Your task to perform on an android device: Turn on the flashlight Image 0: 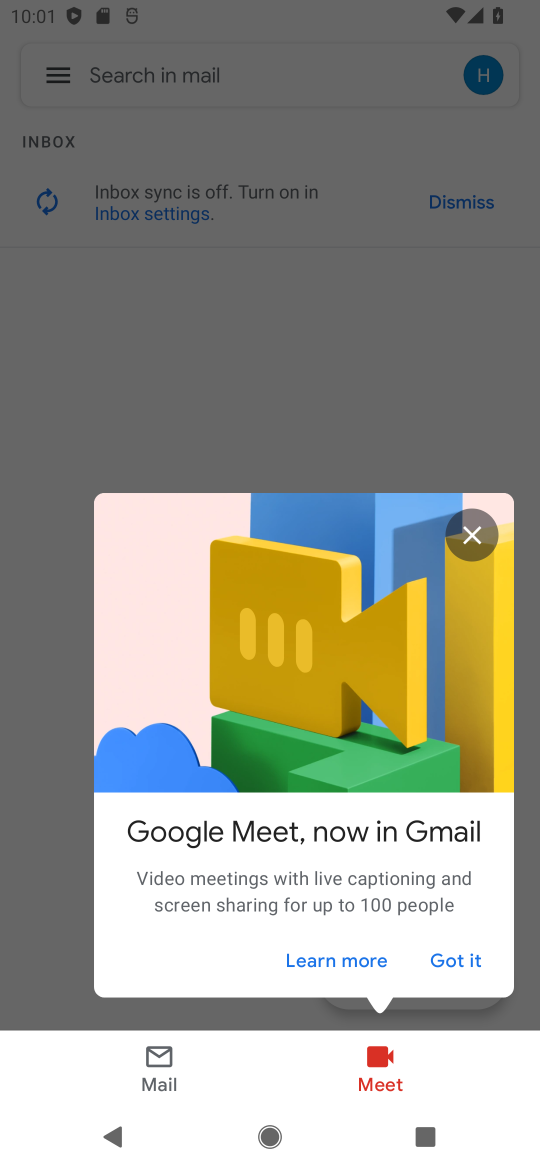
Step 0: task impossible